Your task to perform on an android device: manage bookmarks in the chrome app Image 0: 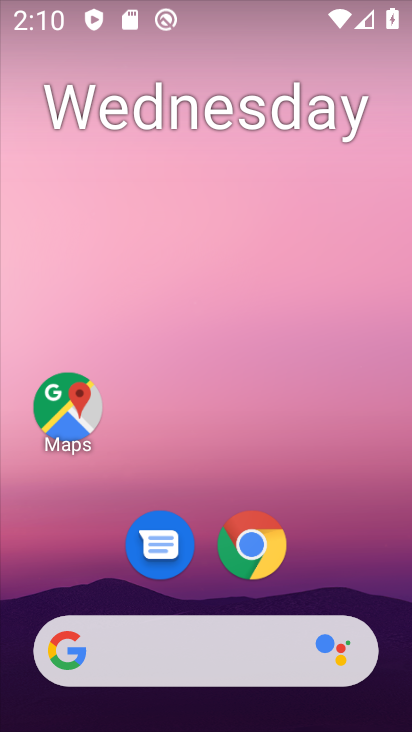
Step 0: click (172, 191)
Your task to perform on an android device: manage bookmarks in the chrome app Image 1: 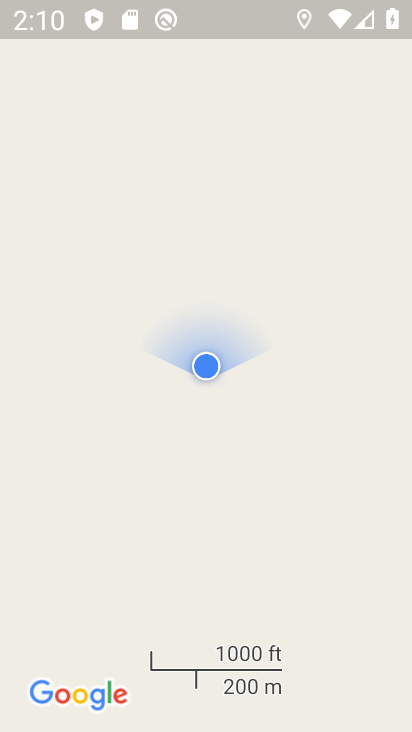
Step 1: press home button
Your task to perform on an android device: manage bookmarks in the chrome app Image 2: 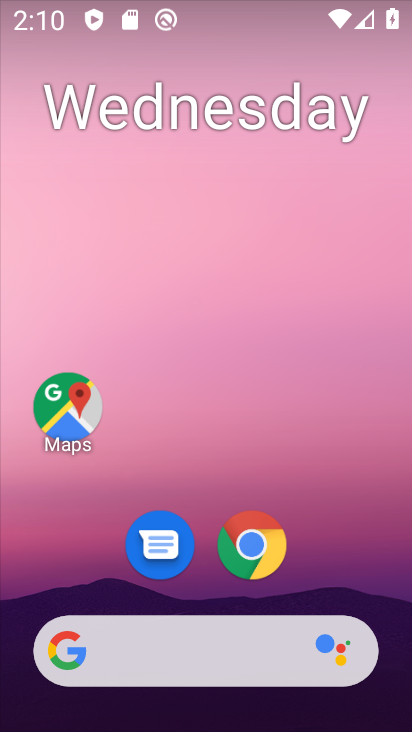
Step 2: click (262, 558)
Your task to perform on an android device: manage bookmarks in the chrome app Image 3: 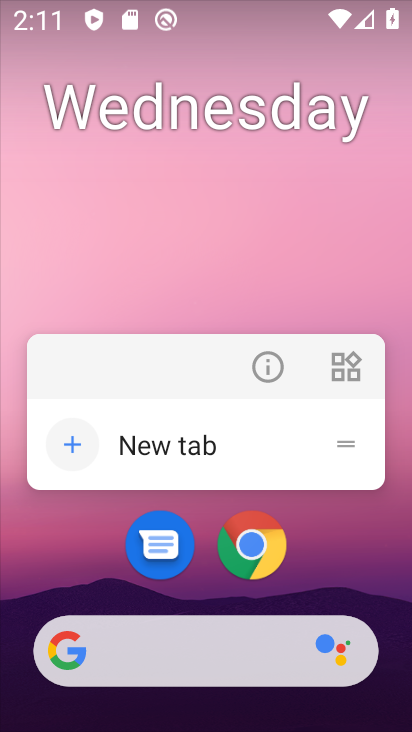
Step 3: click (262, 555)
Your task to perform on an android device: manage bookmarks in the chrome app Image 4: 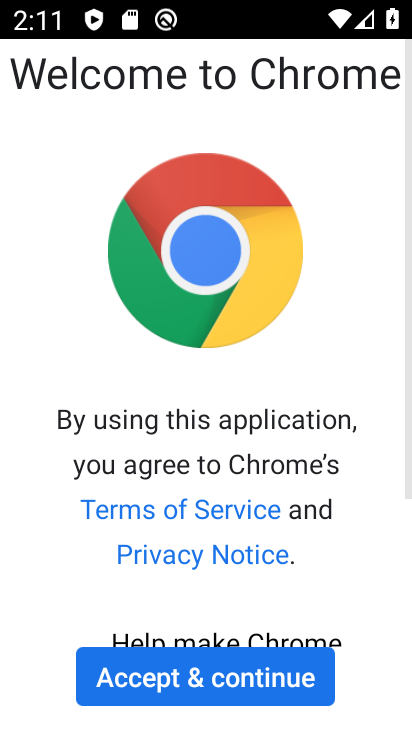
Step 4: click (224, 687)
Your task to perform on an android device: manage bookmarks in the chrome app Image 5: 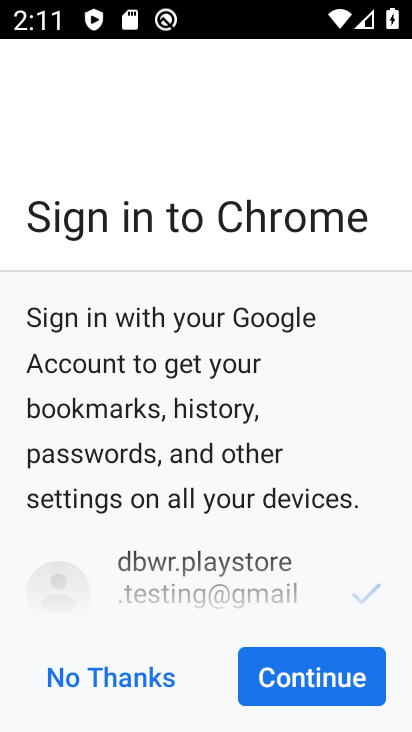
Step 5: click (320, 690)
Your task to perform on an android device: manage bookmarks in the chrome app Image 6: 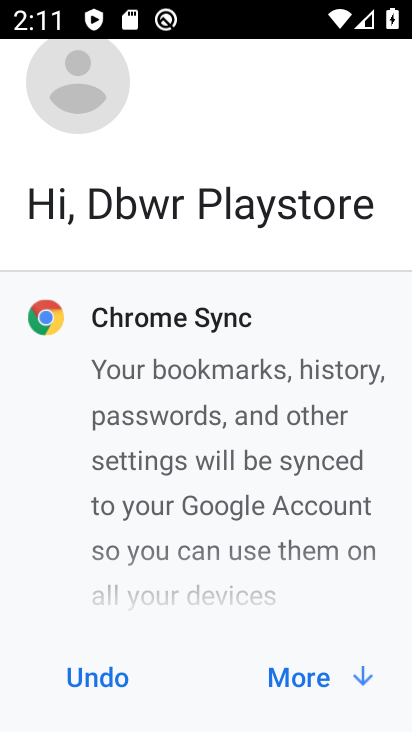
Step 6: click (320, 690)
Your task to perform on an android device: manage bookmarks in the chrome app Image 7: 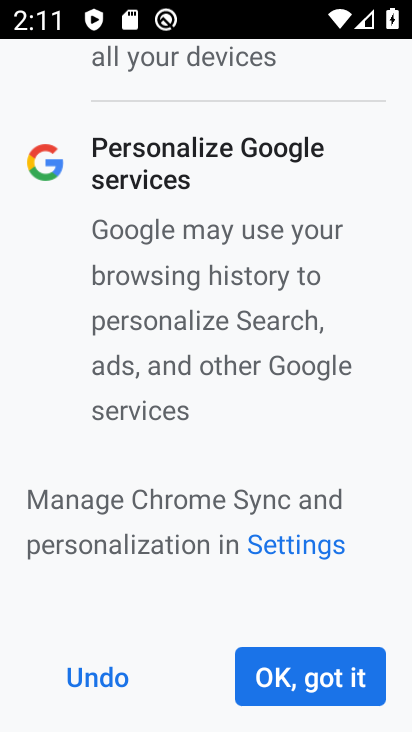
Step 7: click (320, 690)
Your task to perform on an android device: manage bookmarks in the chrome app Image 8: 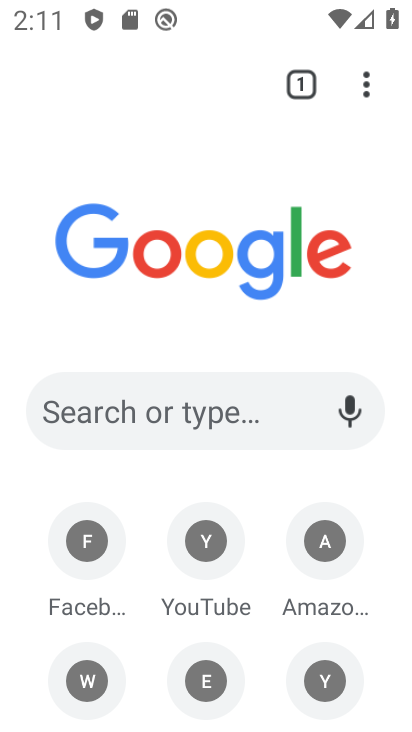
Step 8: task complete